Your task to perform on an android device: turn off priority inbox in the gmail app Image 0: 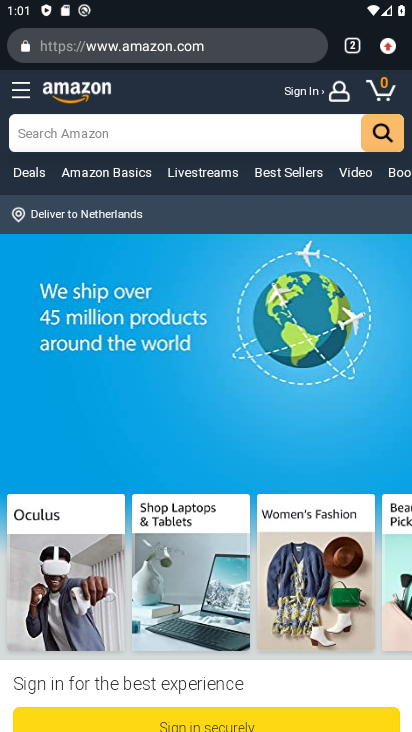
Step 0: press home button
Your task to perform on an android device: turn off priority inbox in the gmail app Image 1: 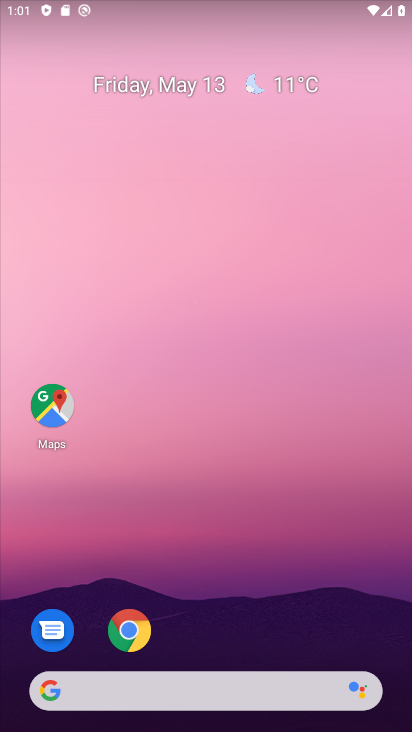
Step 1: drag from (217, 684) to (184, 199)
Your task to perform on an android device: turn off priority inbox in the gmail app Image 2: 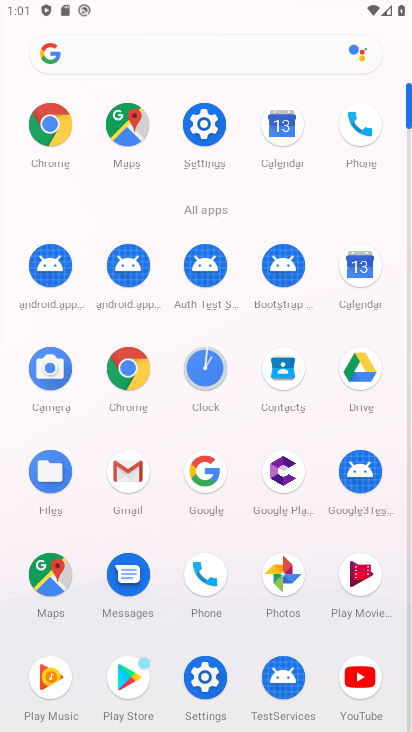
Step 2: click (123, 483)
Your task to perform on an android device: turn off priority inbox in the gmail app Image 3: 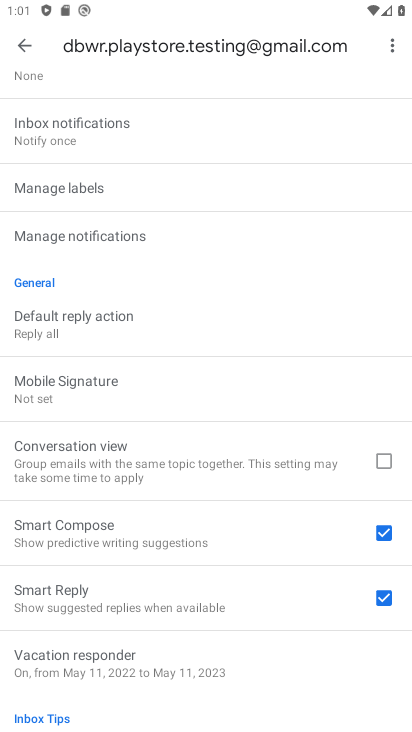
Step 3: drag from (116, 144) to (117, 601)
Your task to perform on an android device: turn off priority inbox in the gmail app Image 4: 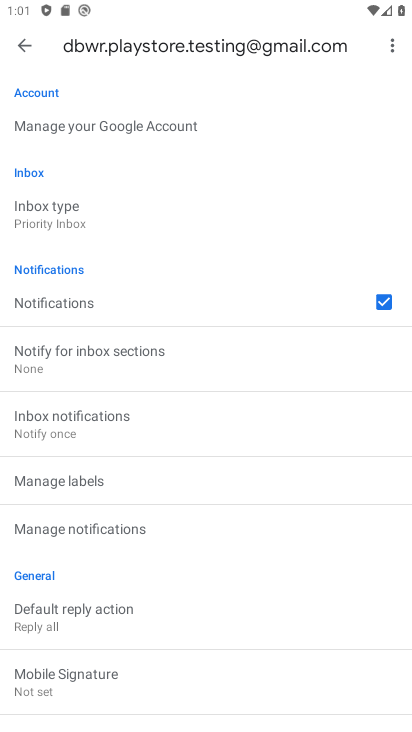
Step 4: click (68, 211)
Your task to perform on an android device: turn off priority inbox in the gmail app Image 5: 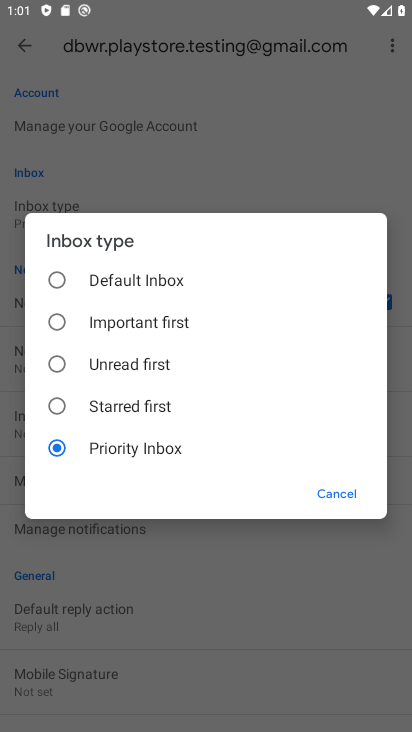
Step 5: click (92, 288)
Your task to perform on an android device: turn off priority inbox in the gmail app Image 6: 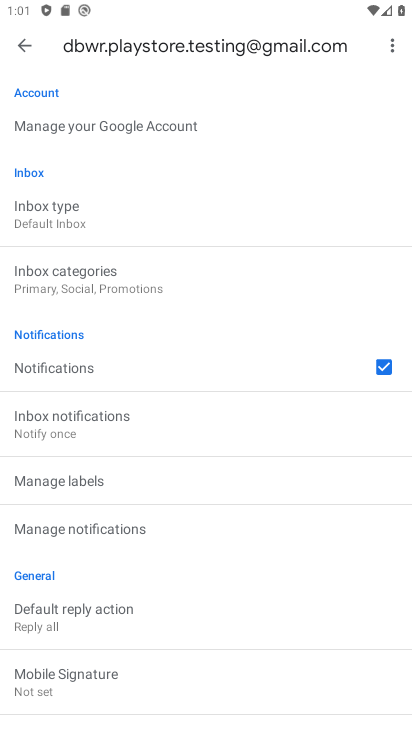
Step 6: task complete